Your task to perform on an android device: turn notification dots on Image 0: 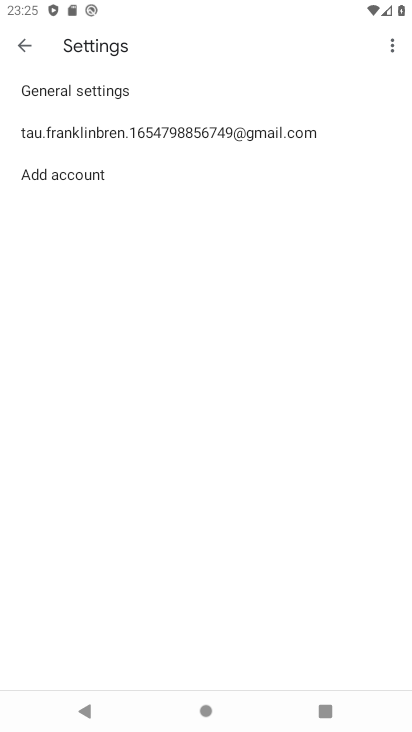
Step 0: press home button
Your task to perform on an android device: turn notification dots on Image 1: 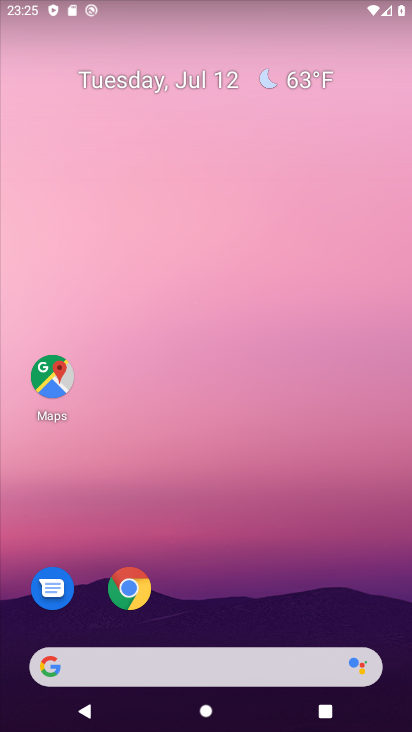
Step 1: drag from (102, 485) to (246, 192)
Your task to perform on an android device: turn notification dots on Image 2: 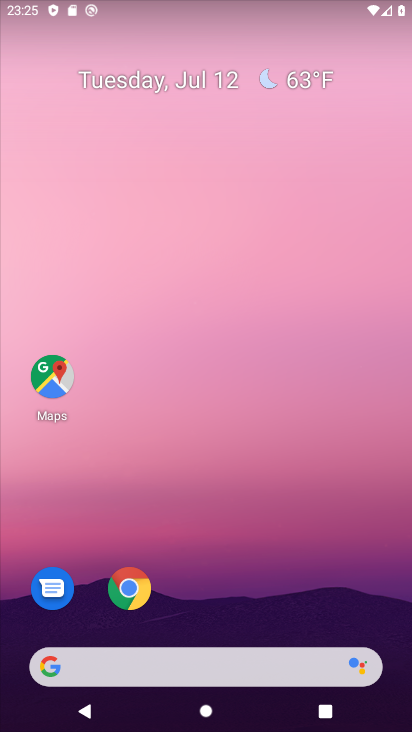
Step 2: drag from (34, 698) to (404, 373)
Your task to perform on an android device: turn notification dots on Image 3: 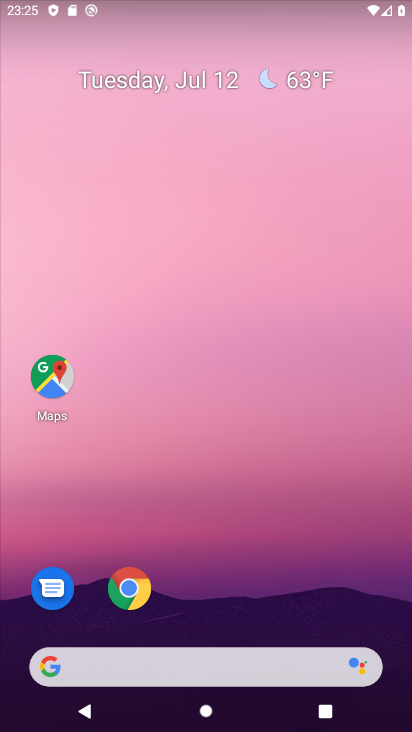
Step 3: drag from (6, 715) to (353, 20)
Your task to perform on an android device: turn notification dots on Image 4: 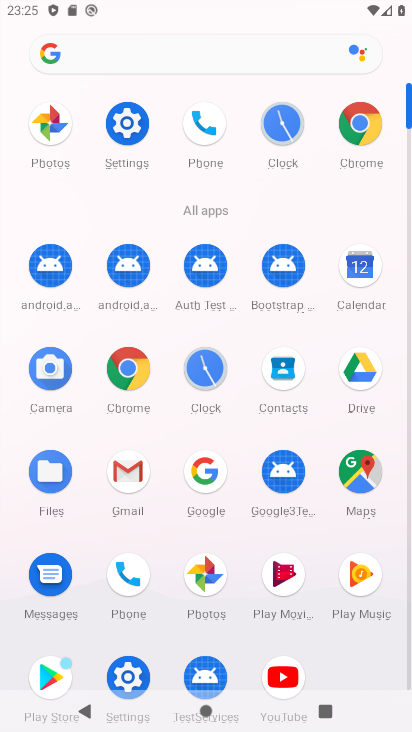
Step 4: click (129, 679)
Your task to perform on an android device: turn notification dots on Image 5: 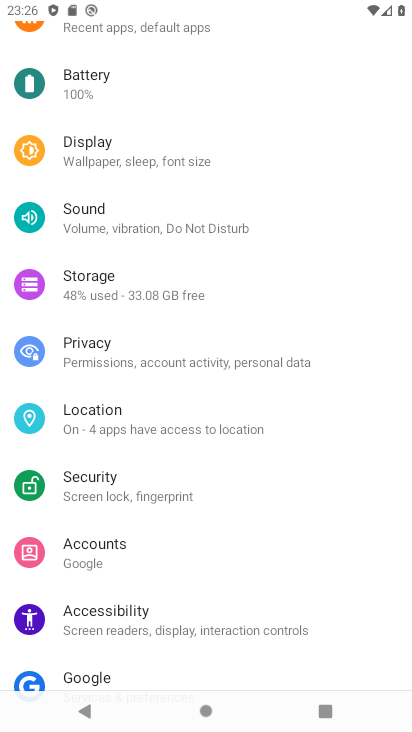
Step 5: drag from (322, 645) to (321, 210)
Your task to perform on an android device: turn notification dots on Image 6: 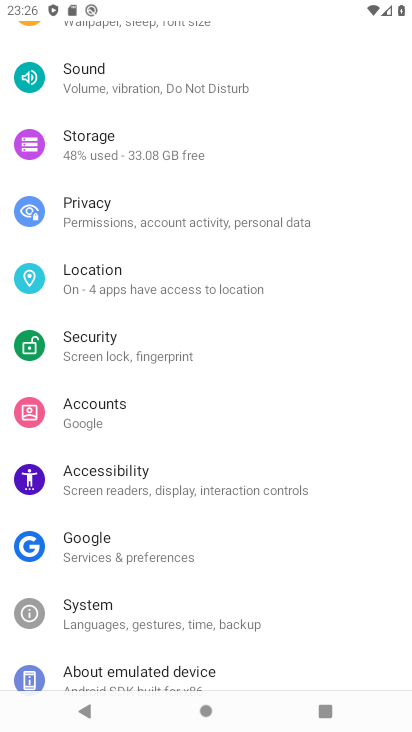
Step 6: drag from (165, 650) to (220, 375)
Your task to perform on an android device: turn notification dots on Image 7: 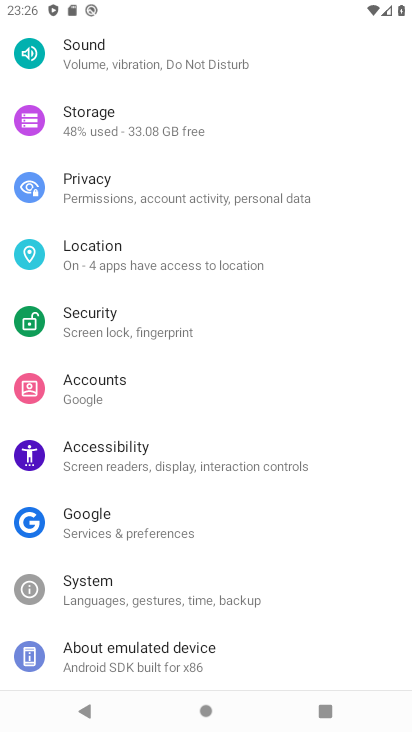
Step 7: drag from (252, 88) to (209, 727)
Your task to perform on an android device: turn notification dots on Image 8: 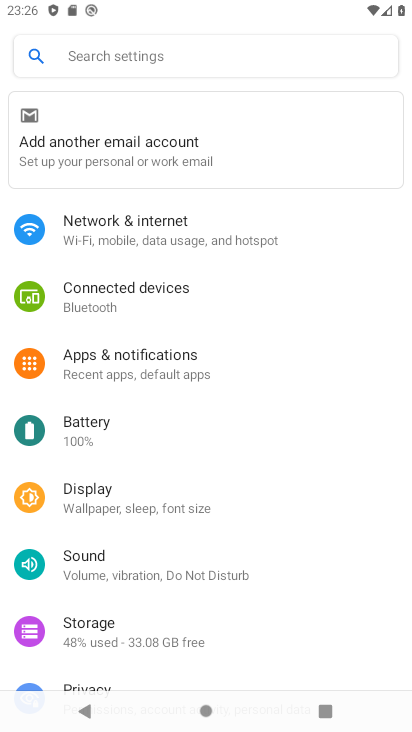
Step 8: click (119, 358)
Your task to perform on an android device: turn notification dots on Image 9: 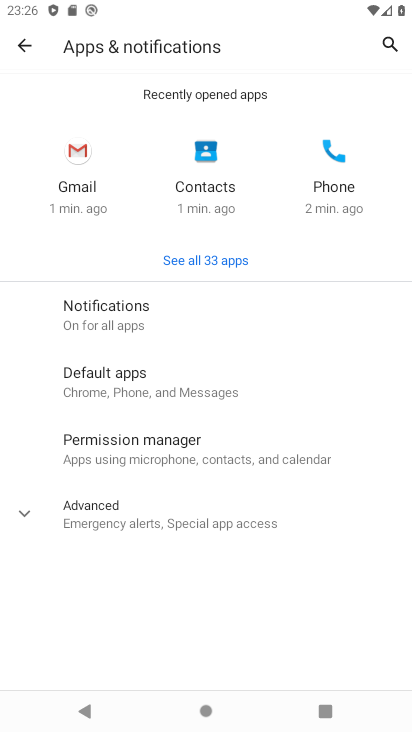
Step 9: click (112, 508)
Your task to perform on an android device: turn notification dots on Image 10: 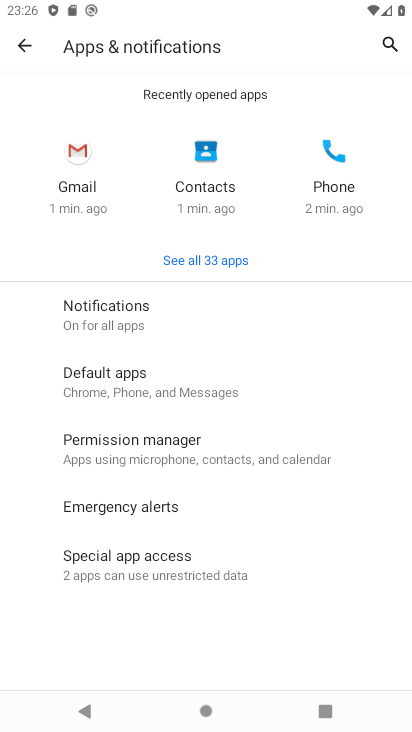
Step 10: drag from (170, 593) to (237, 237)
Your task to perform on an android device: turn notification dots on Image 11: 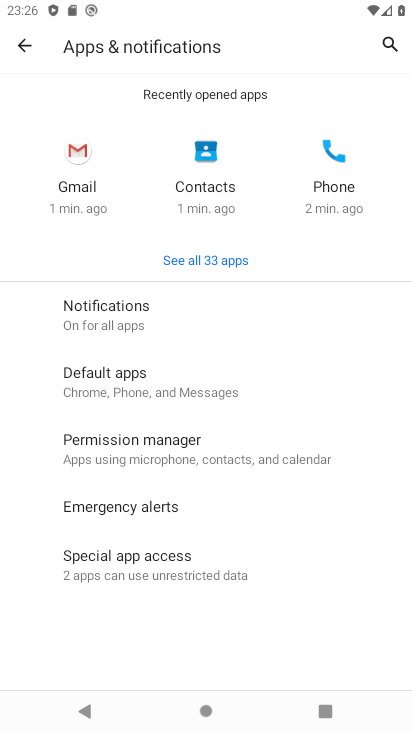
Step 11: click (185, 583)
Your task to perform on an android device: turn notification dots on Image 12: 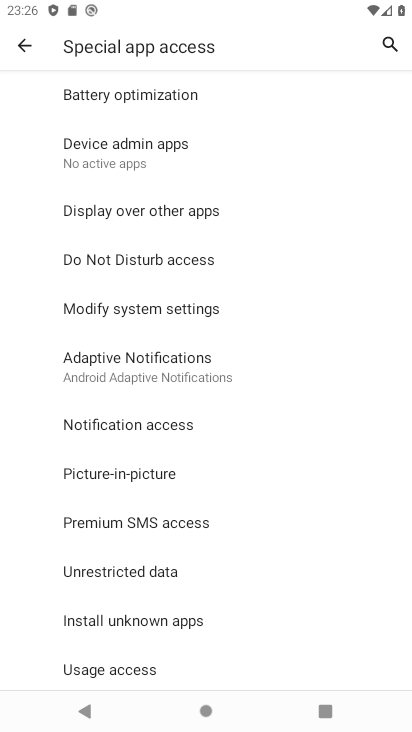
Step 12: click (23, 54)
Your task to perform on an android device: turn notification dots on Image 13: 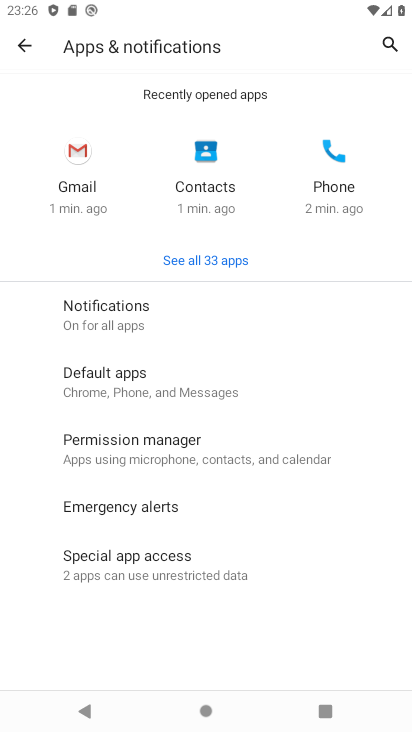
Step 13: click (133, 311)
Your task to perform on an android device: turn notification dots on Image 14: 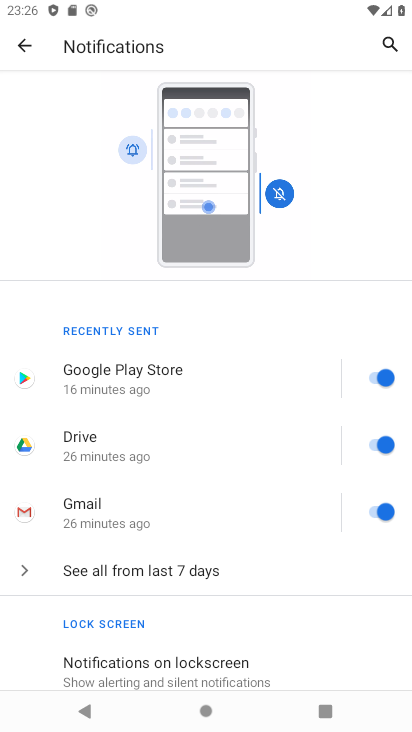
Step 14: drag from (258, 670) to (279, 221)
Your task to perform on an android device: turn notification dots on Image 15: 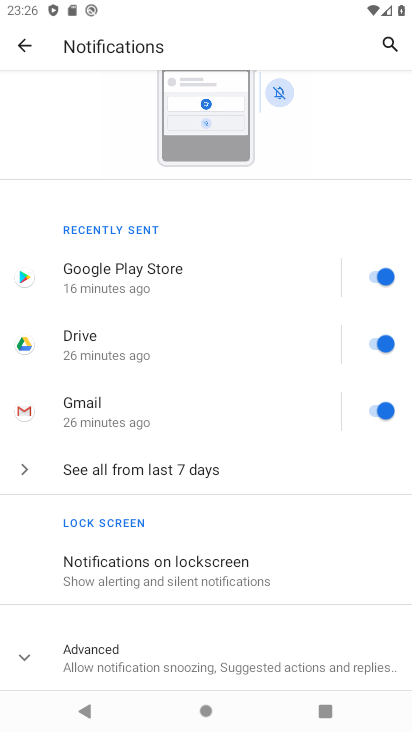
Step 15: drag from (197, 669) to (215, 256)
Your task to perform on an android device: turn notification dots on Image 16: 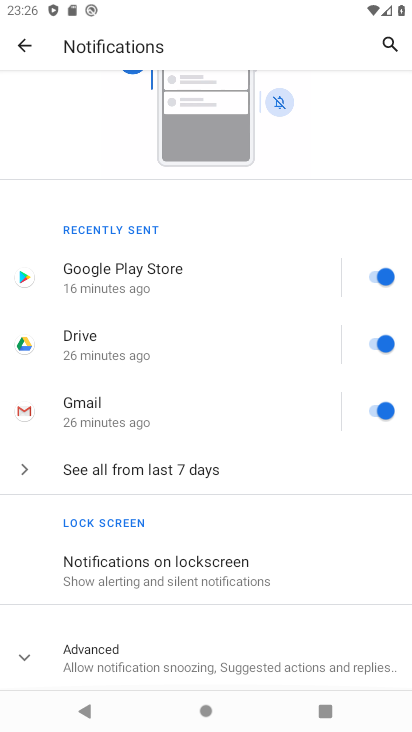
Step 16: click (117, 661)
Your task to perform on an android device: turn notification dots on Image 17: 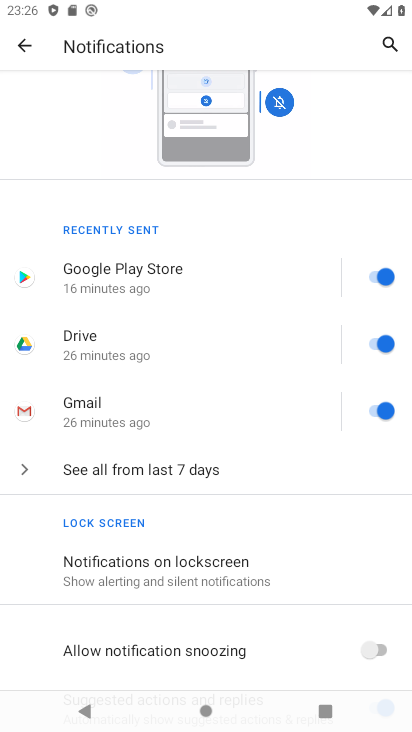
Step 17: task complete